Your task to perform on an android device: What's the weather today? Image 0: 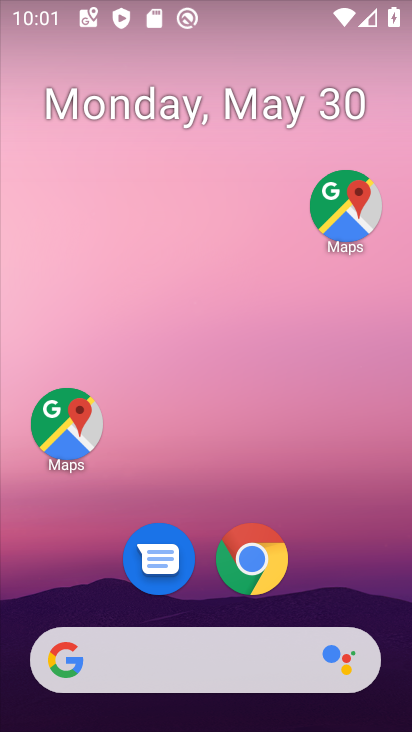
Step 0: drag from (332, 571) to (299, 144)
Your task to perform on an android device: What's the weather today? Image 1: 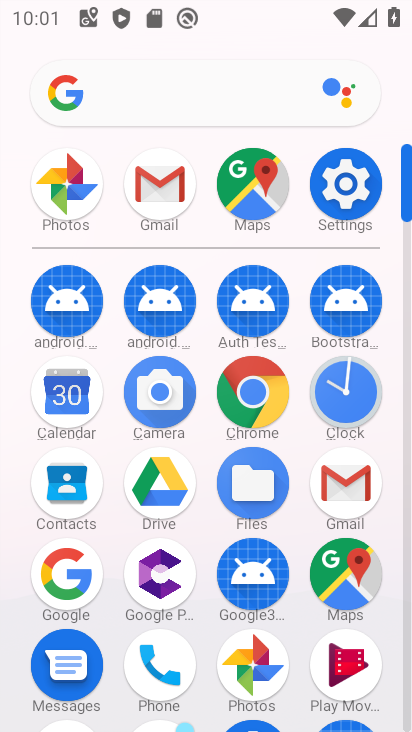
Step 1: click (256, 389)
Your task to perform on an android device: What's the weather today? Image 2: 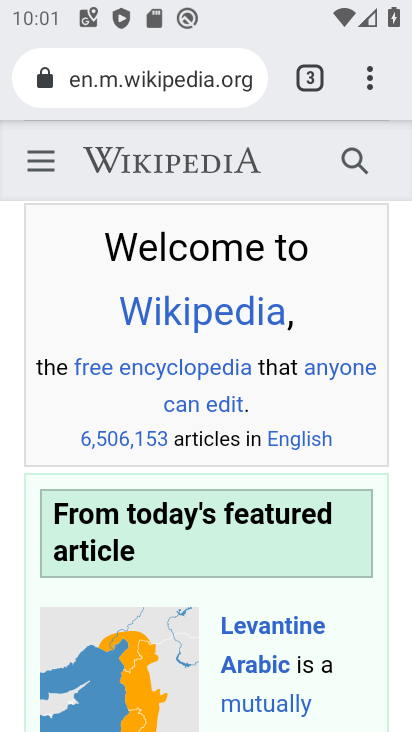
Step 2: click (165, 77)
Your task to perform on an android device: What's the weather today? Image 3: 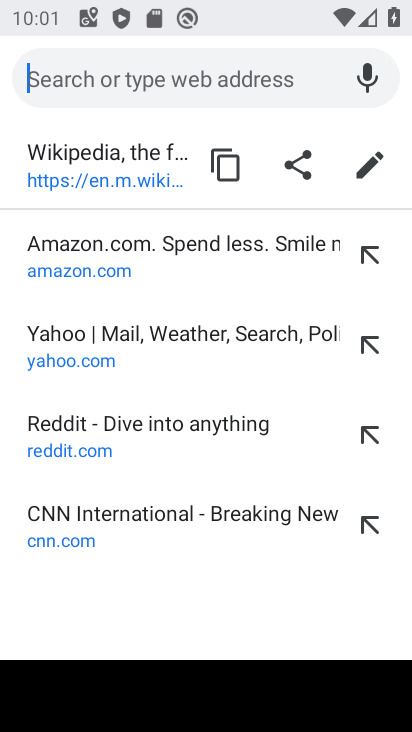
Step 3: type "weather"
Your task to perform on an android device: What's the weather today? Image 4: 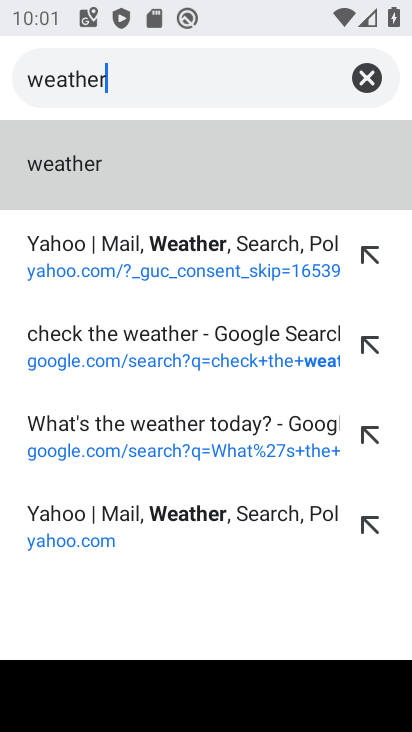
Step 4: click (70, 160)
Your task to perform on an android device: What's the weather today? Image 5: 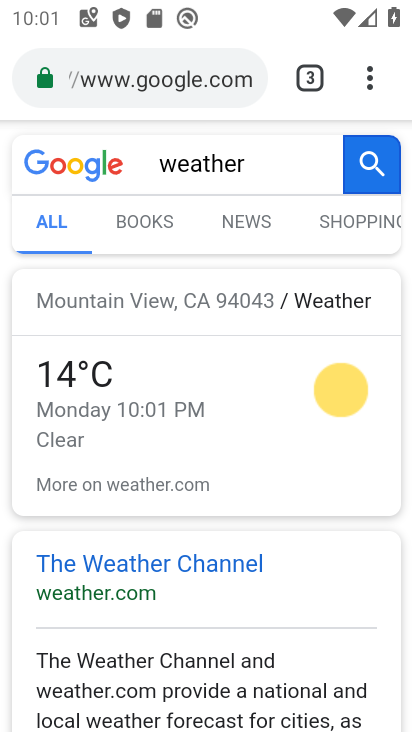
Step 5: task complete